Your task to perform on an android device: Open accessibility settings Image 0: 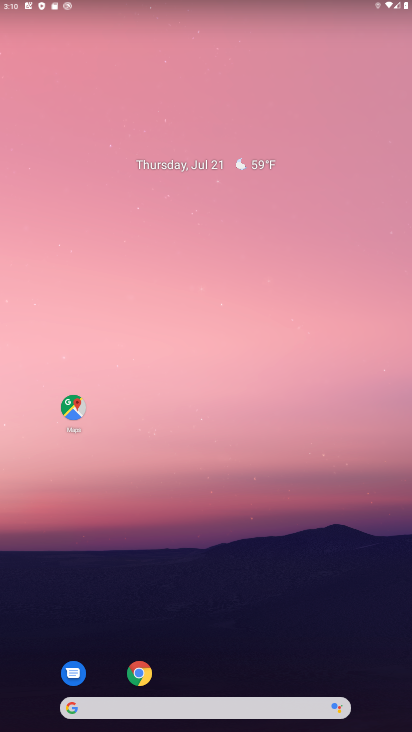
Step 0: drag from (293, 677) to (192, 158)
Your task to perform on an android device: Open accessibility settings Image 1: 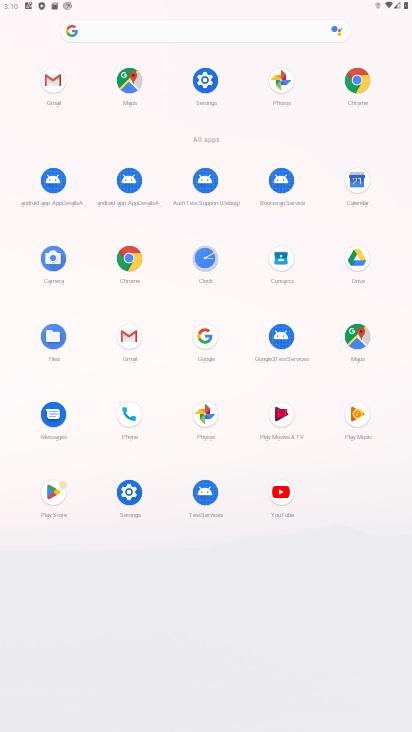
Step 1: click (207, 81)
Your task to perform on an android device: Open accessibility settings Image 2: 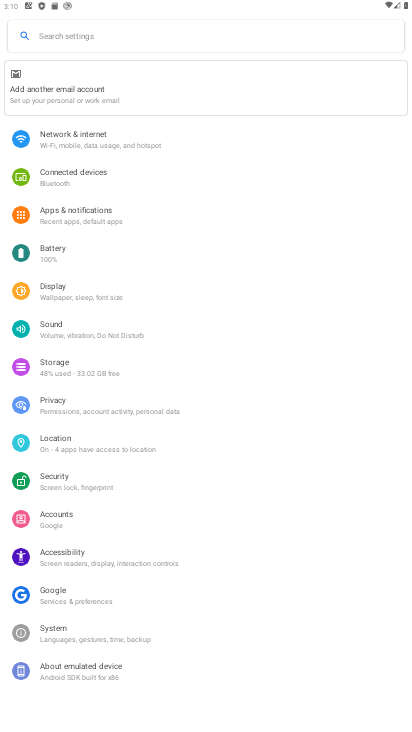
Step 2: click (66, 560)
Your task to perform on an android device: Open accessibility settings Image 3: 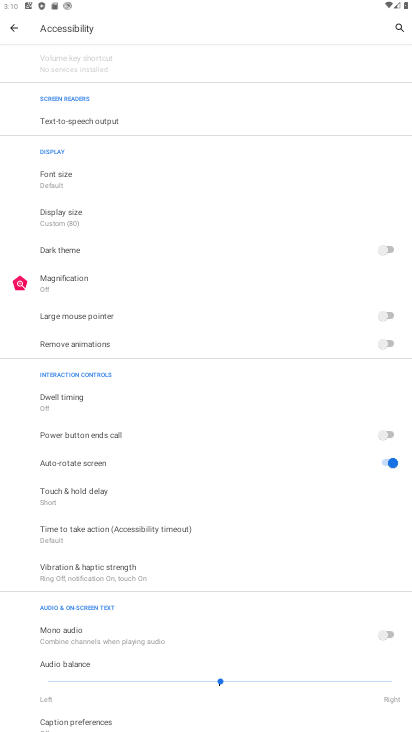
Step 3: task complete